Your task to perform on an android device: Show me recent news Image 0: 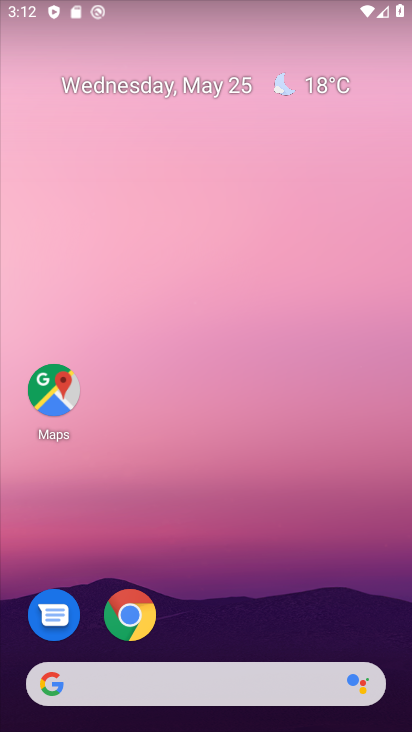
Step 0: drag from (2, 229) to (403, 220)
Your task to perform on an android device: Show me recent news Image 1: 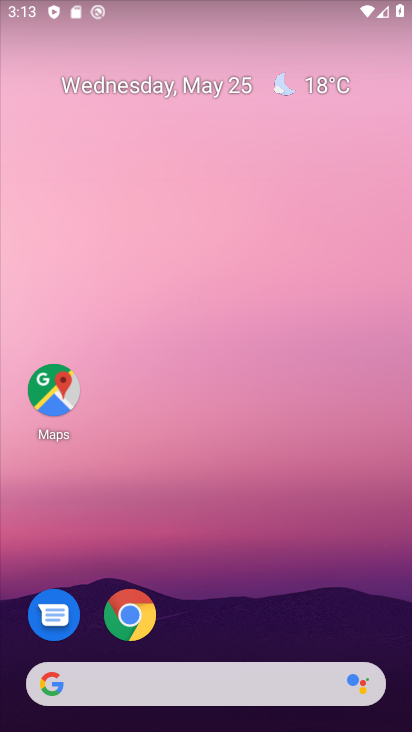
Step 1: task complete